Your task to perform on an android device: Go to Yahoo.com Image 0: 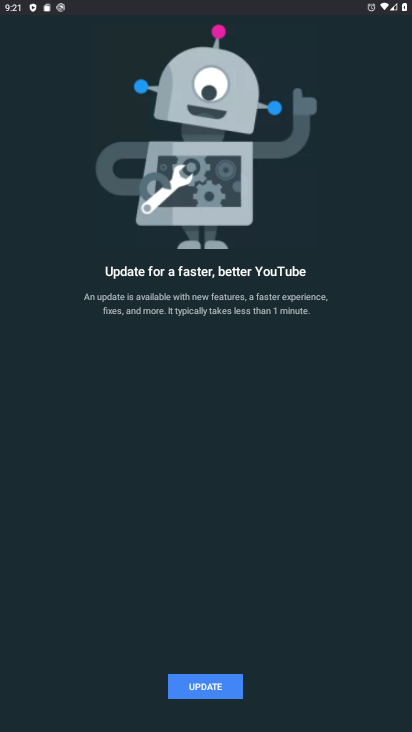
Step 0: press home button
Your task to perform on an android device: Go to Yahoo.com Image 1: 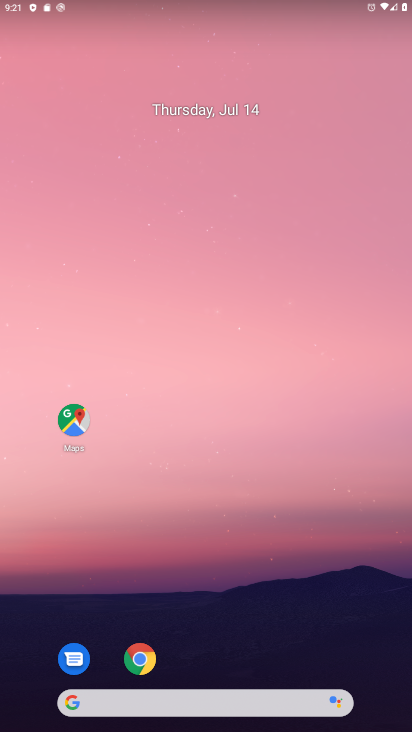
Step 1: drag from (244, 665) to (288, 261)
Your task to perform on an android device: Go to Yahoo.com Image 2: 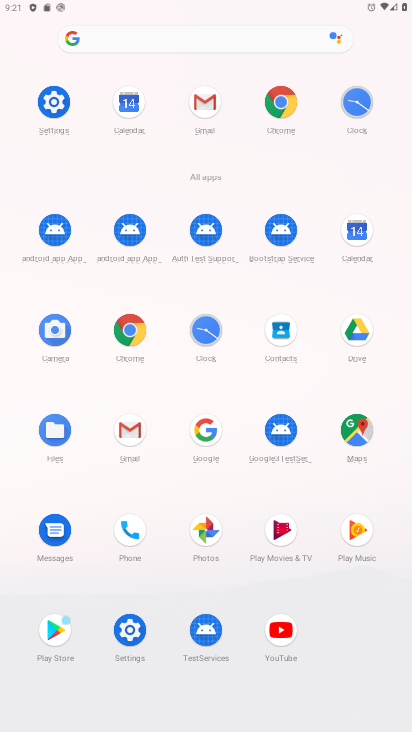
Step 2: click (123, 335)
Your task to perform on an android device: Go to Yahoo.com Image 3: 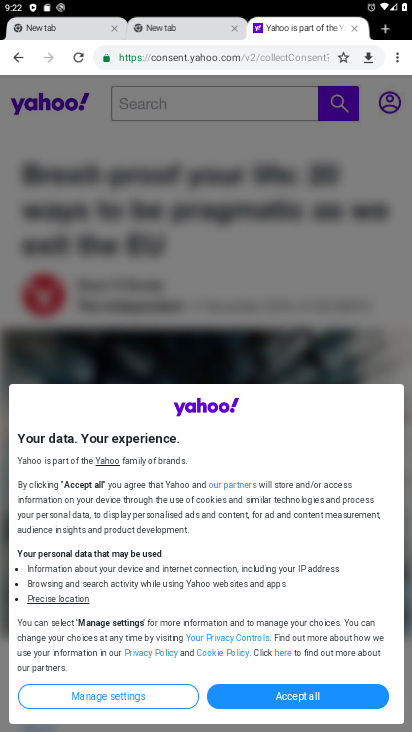
Step 3: task complete